Your task to perform on an android device: uninstall "Contacts" Image 0: 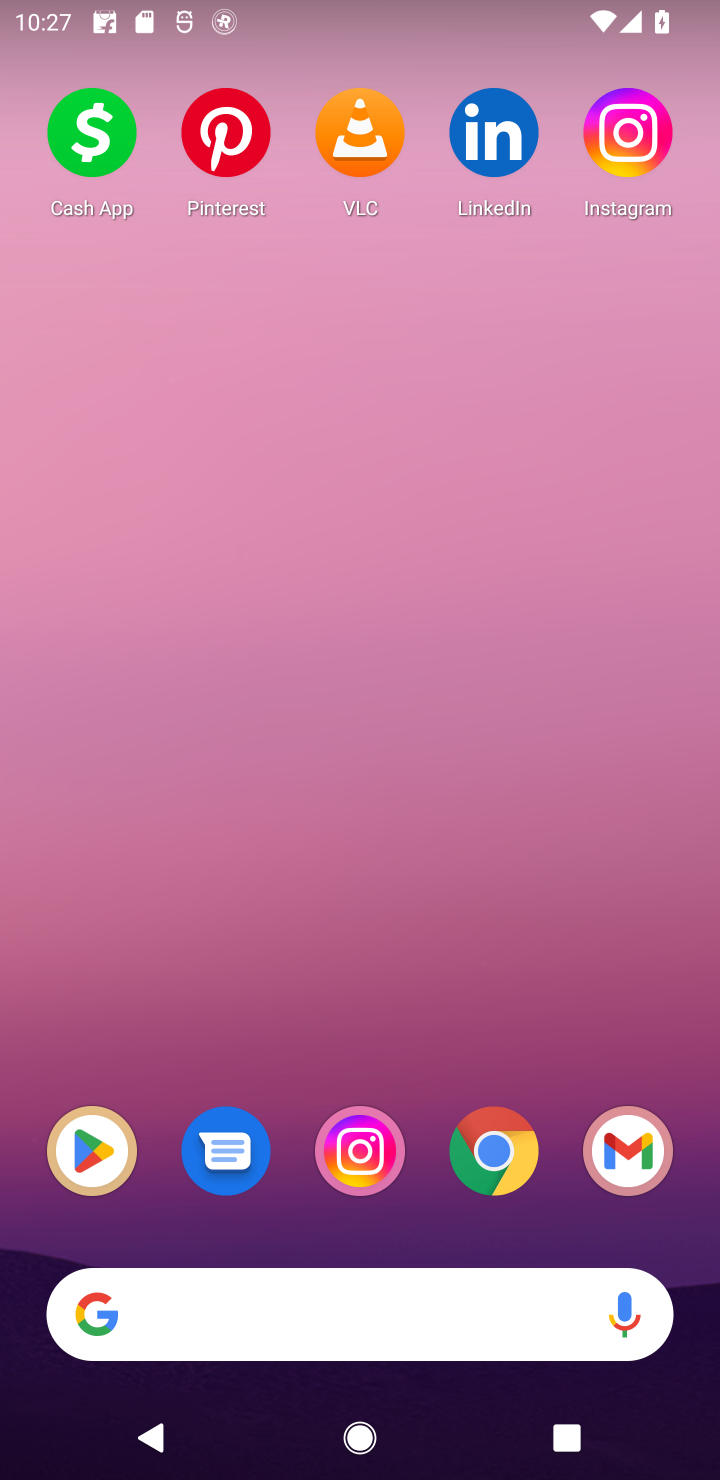
Step 0: click (109, 1128)
Your task to perform on an android device: uninstall "Contacts" Image 1: 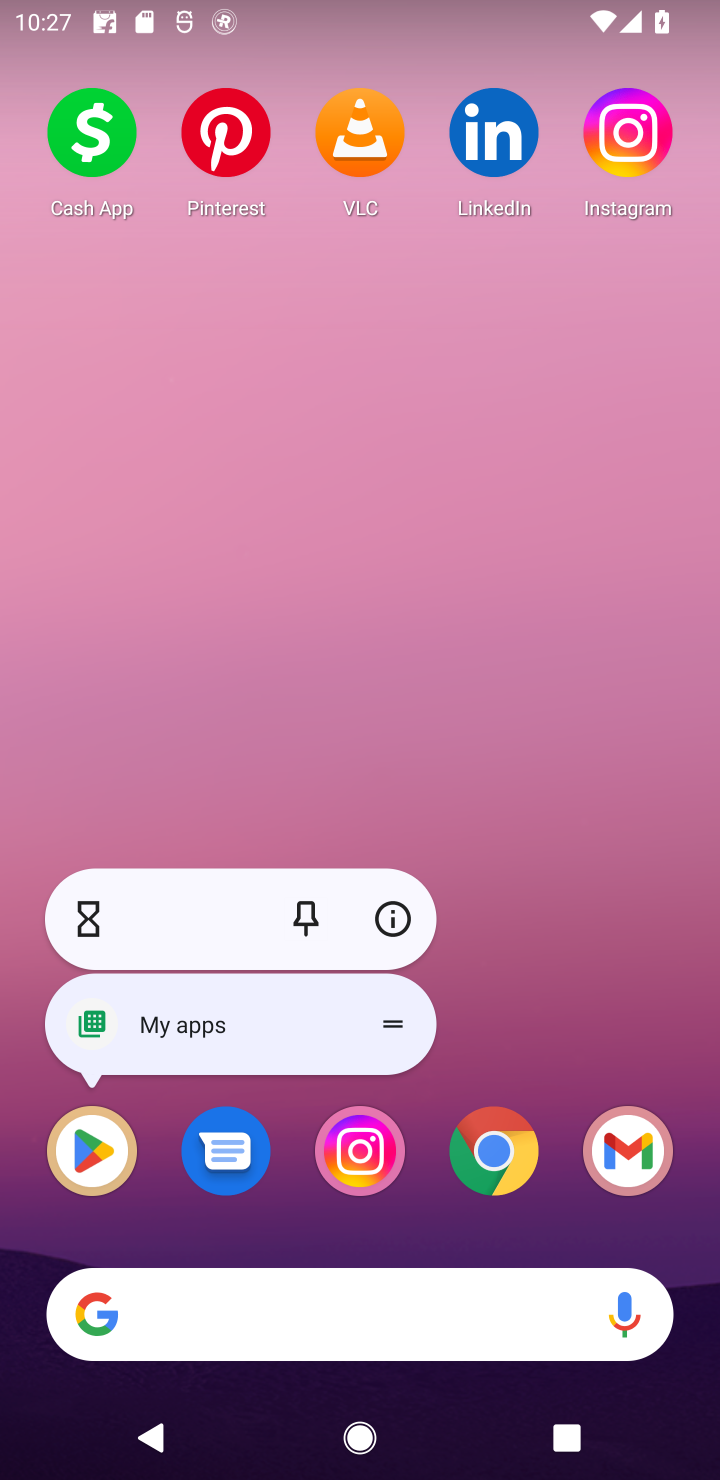
Step 1: click (109, 1128)
Your task to perform on an android device: uninstall "Contacts" Image 2: 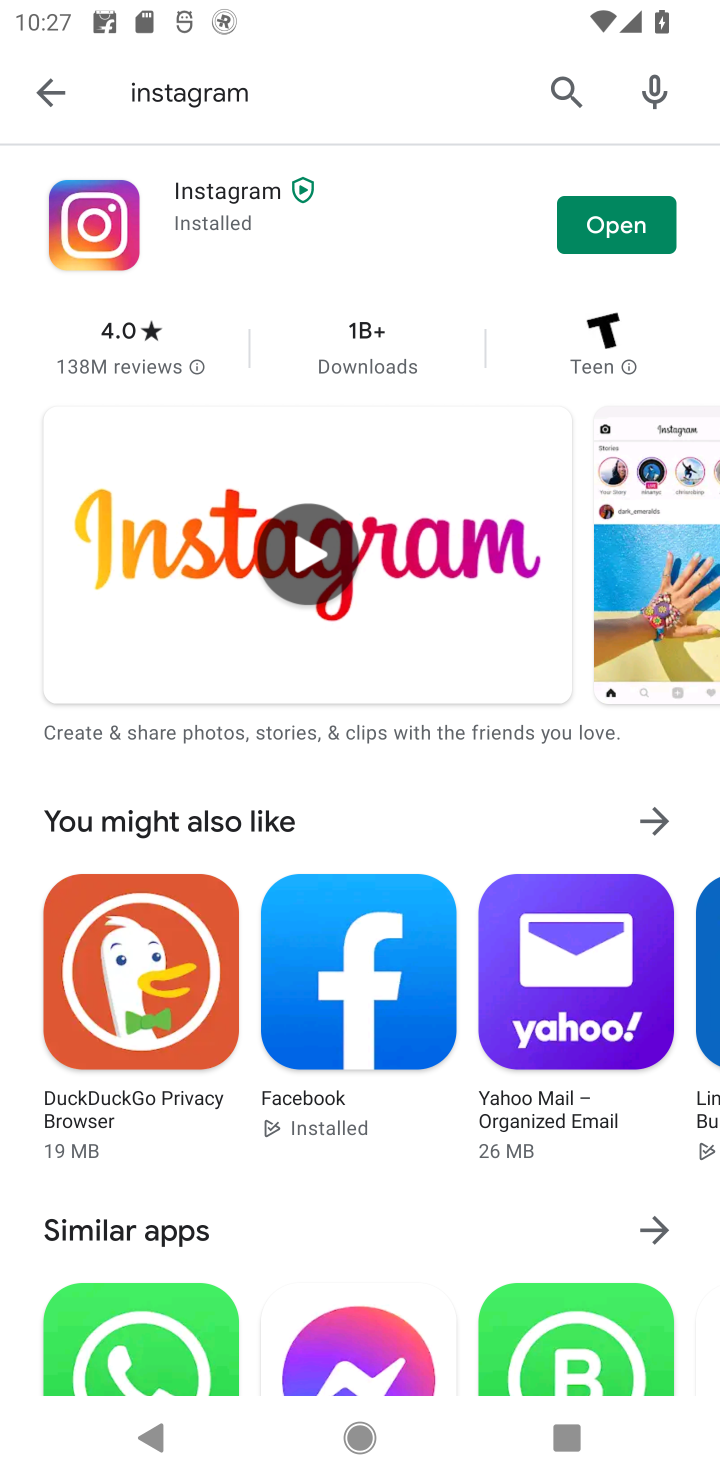
Step 2: click (572, 88)
Your task to perform on an android device: uninstall "Contacts" Image 3: 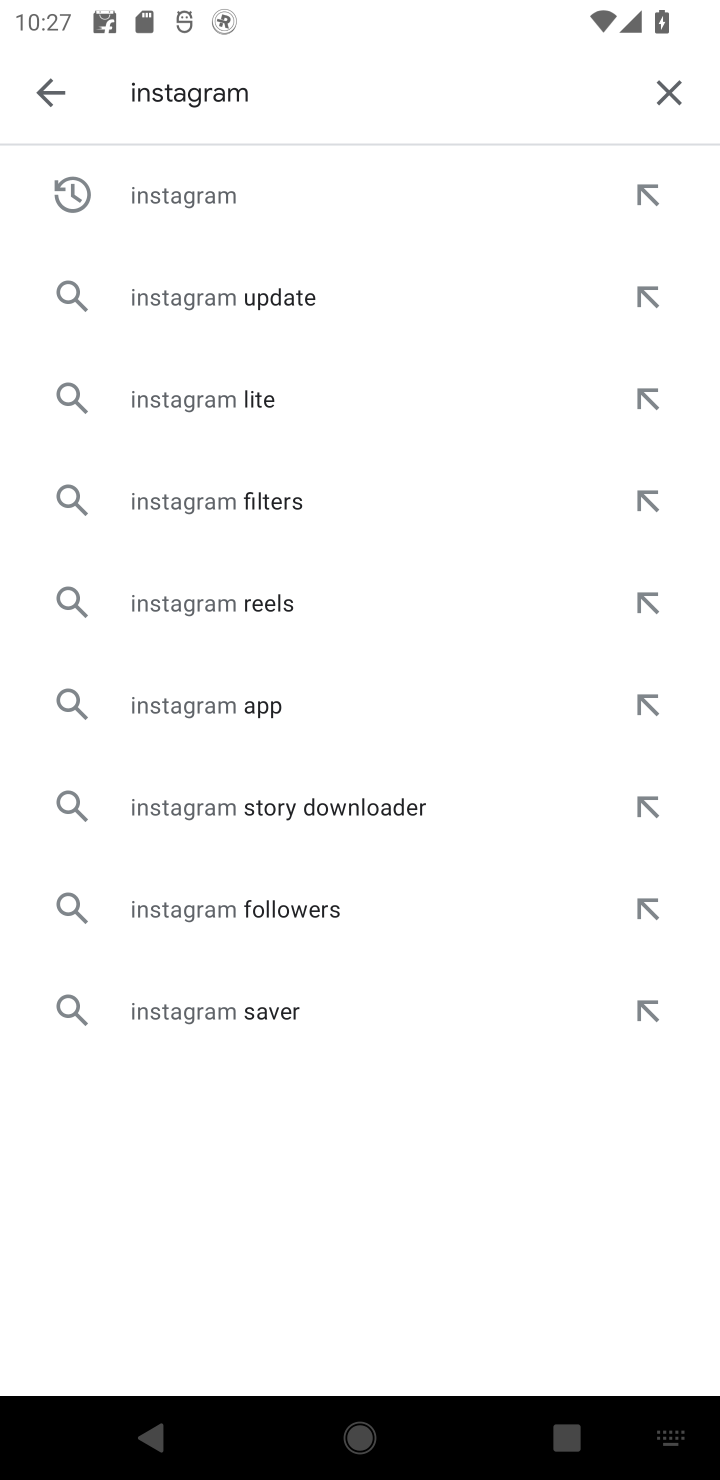
Step 3: click (666, 90)
Your task to perform on an android device: uninstall "Contacts" Image 4: 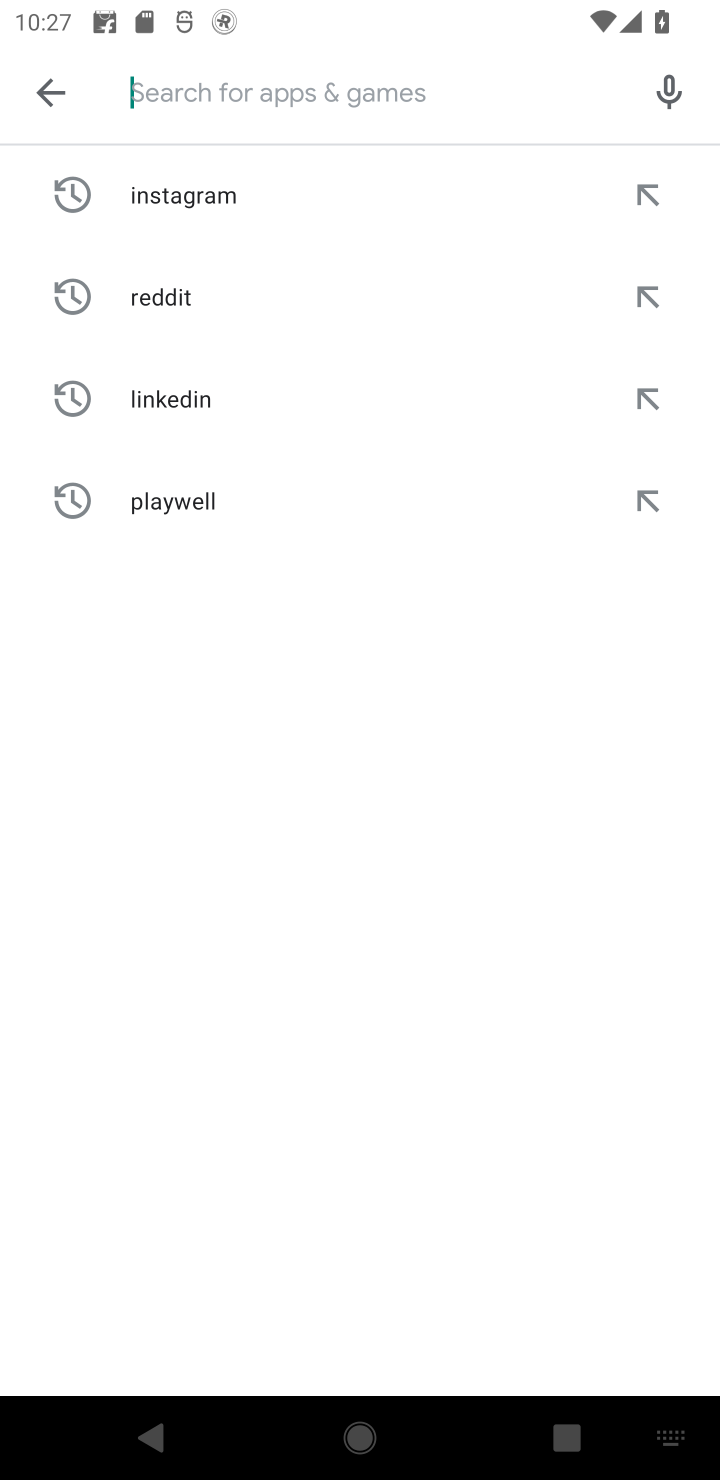
Step 4: type "Contacts"
Your task to perform on an android device: uninstall "Contacts" Image 5: 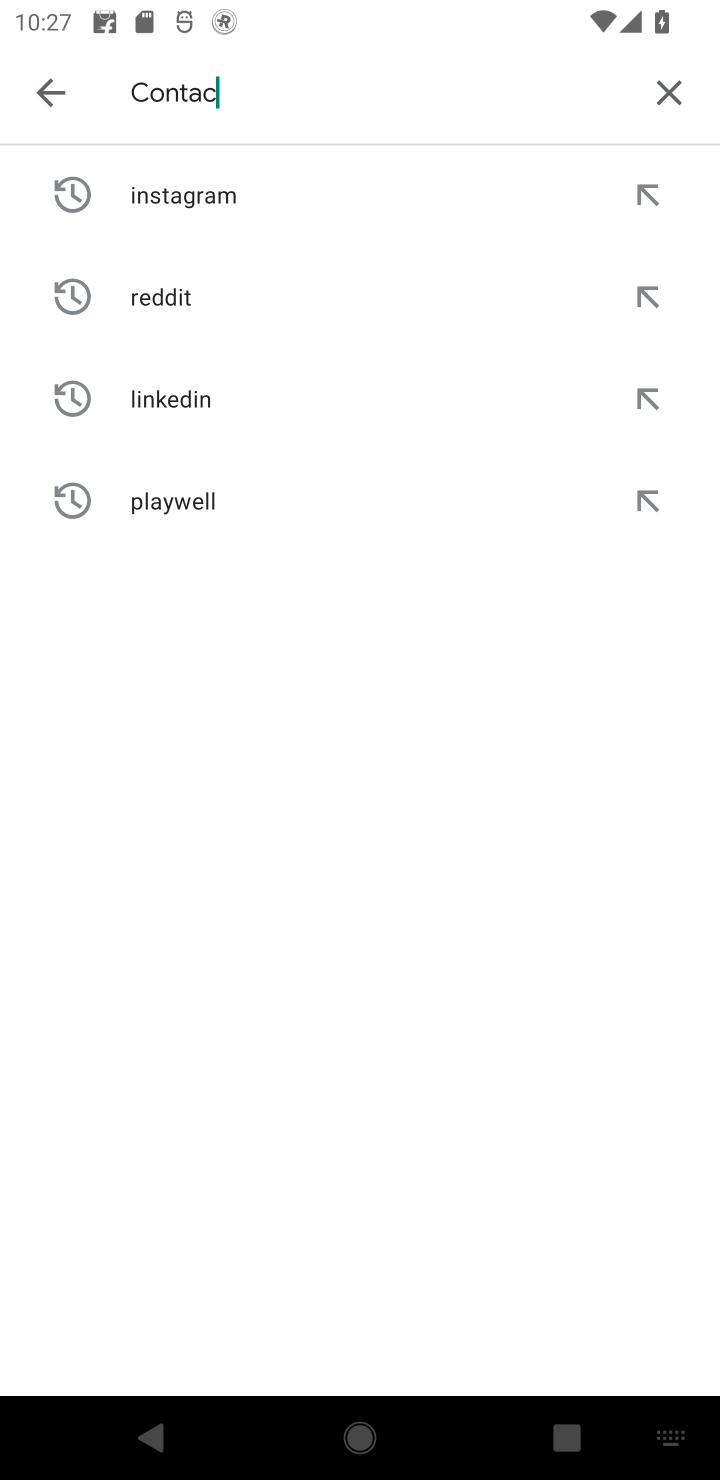
Step 5: type ""
Your task to perform on an android device: uninstall "Contacts" Image 6: 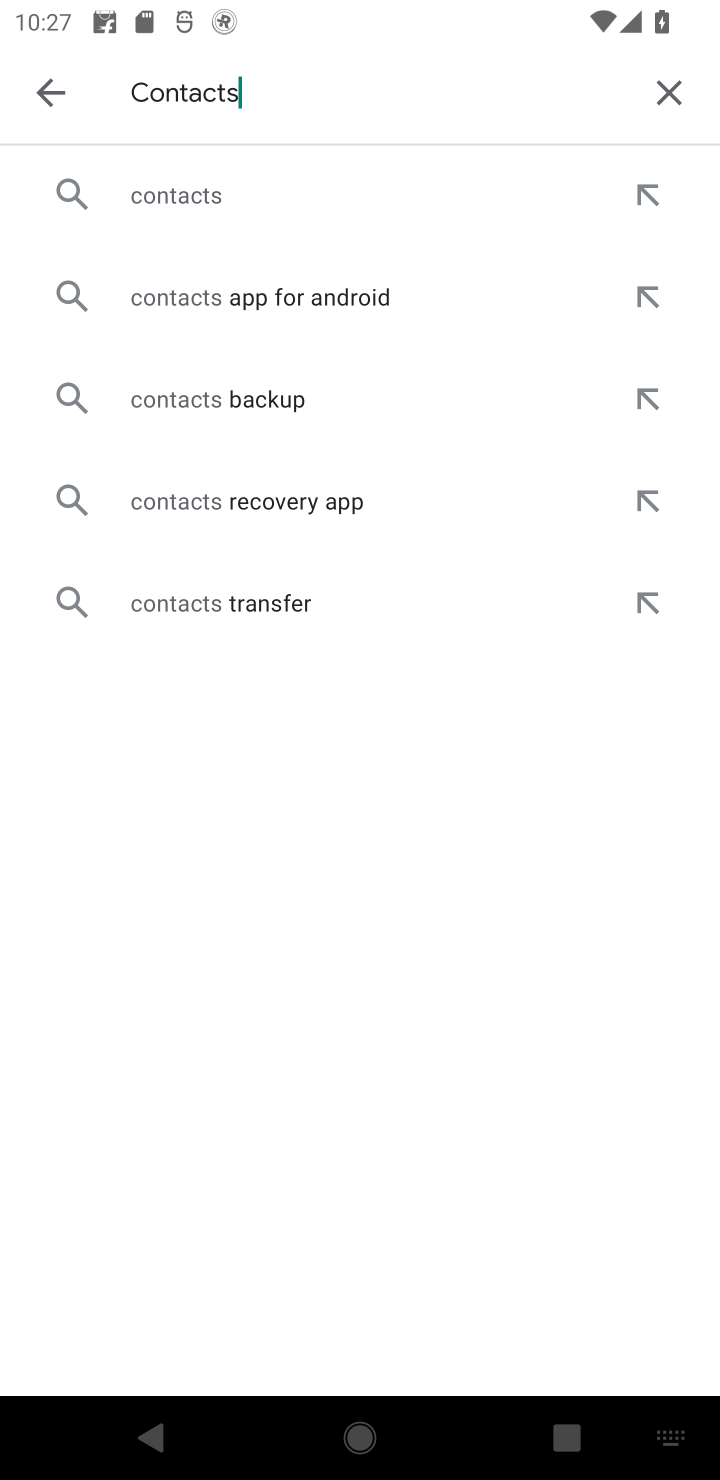
Step 6: click (253, 186)
Your task to perform on an android device: uninstall "Contacts" Image 7: 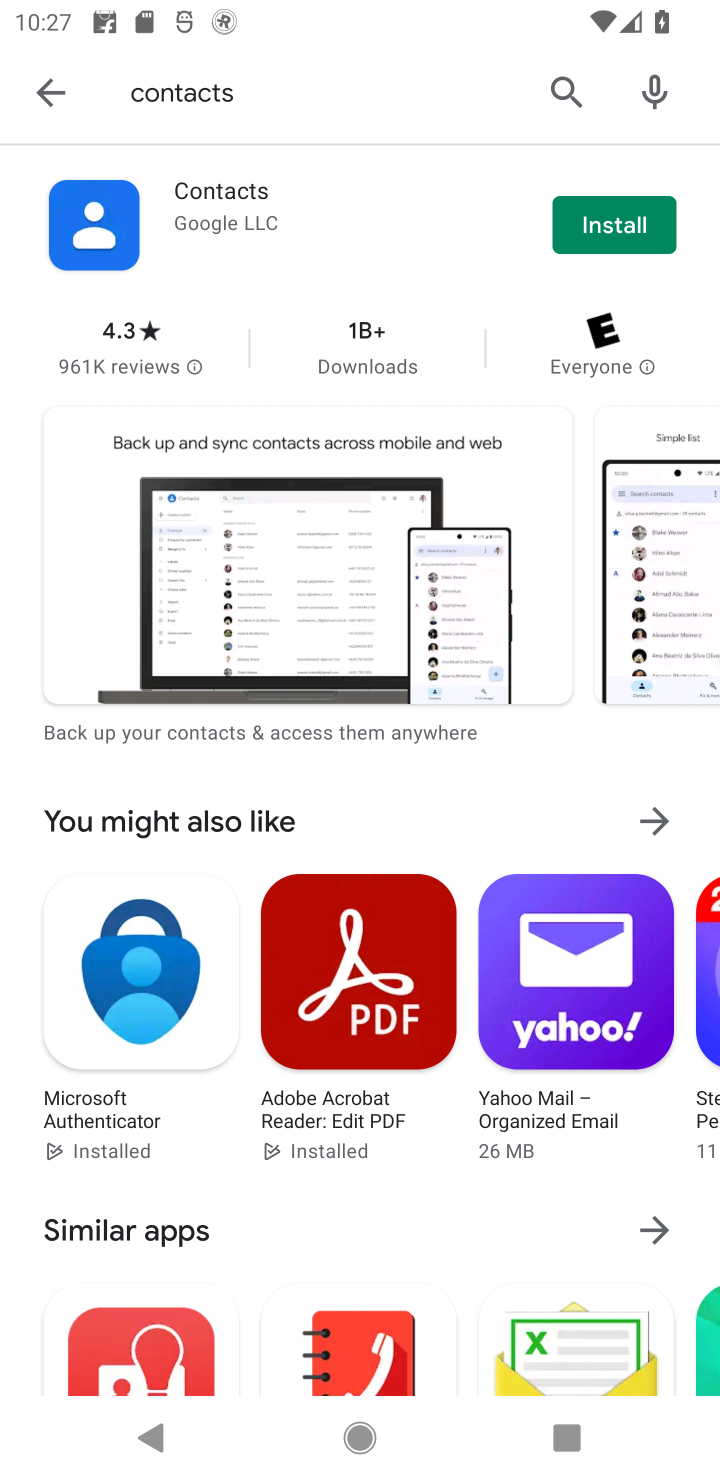
Step 7: task complete